Your task to perform on an android device: turn on priority inbox in the gmail app Image 0: 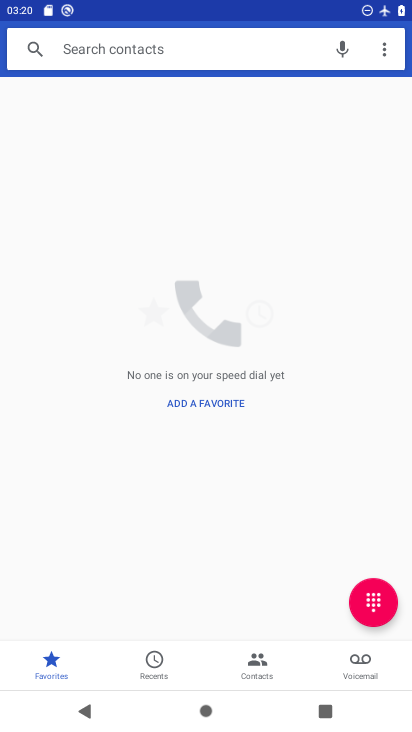
Step 0: press home button
Your task to perform on an android device: turn on priority inbox in the gmail app Image 1: 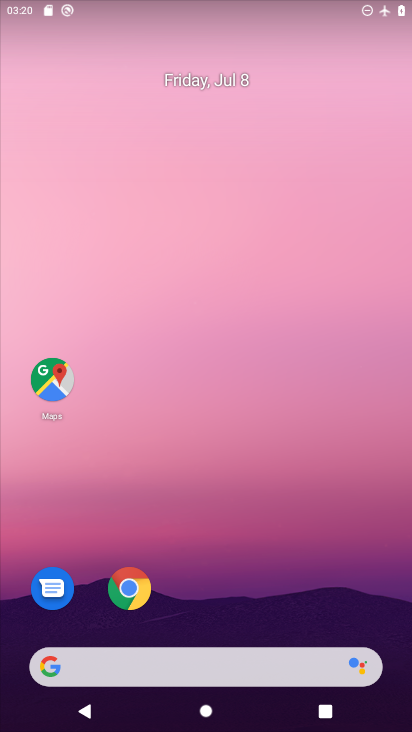
Step 1: click (140, 48)
Your task to perform on an android device: turn on priority inbox in the gmail app Image 2: 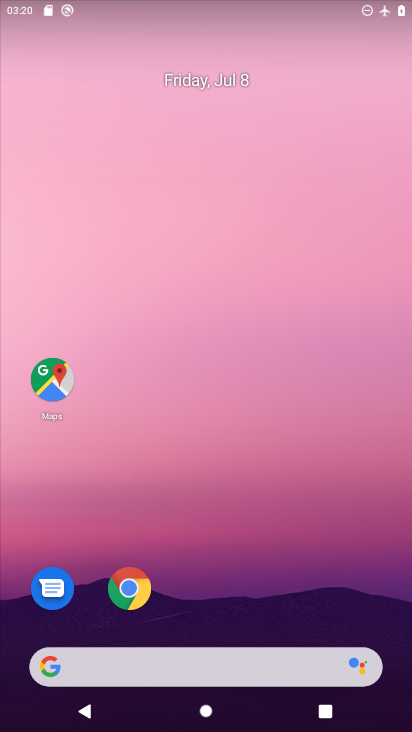
Step 2: drag from (170, 466) to (130, 24)
Your task to perform on an android device: turn on priority inbox in the gmail app Image 3: 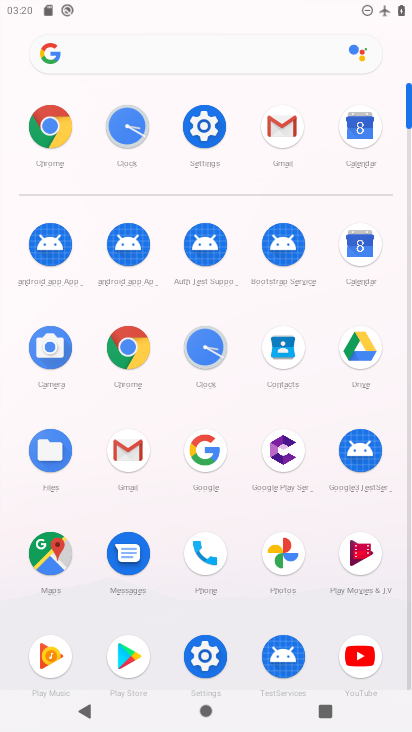
Step 3: drag from (194, 617) to (155, 6)
Your task to perform on an android device: turn on priority inbox in the gmail app Image 4: 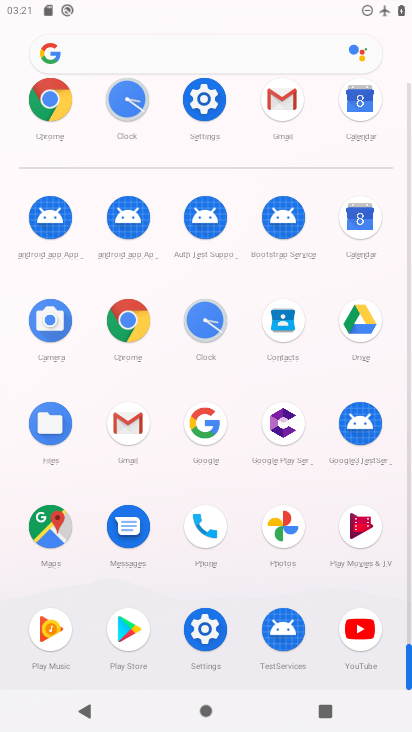
Step 4: click (207, 95)
Your task to perform on an android device: turn on priority inbox in the gmail app Image 5: 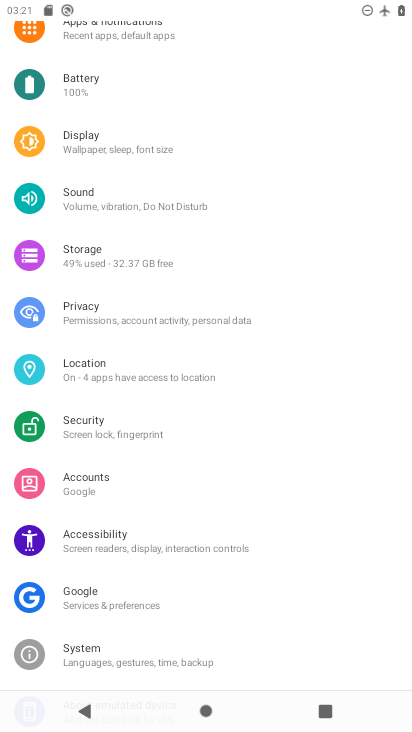
Step 5: press back button
Your task to perform on an android device: turn on priority inbox in the gmail app Image 6: 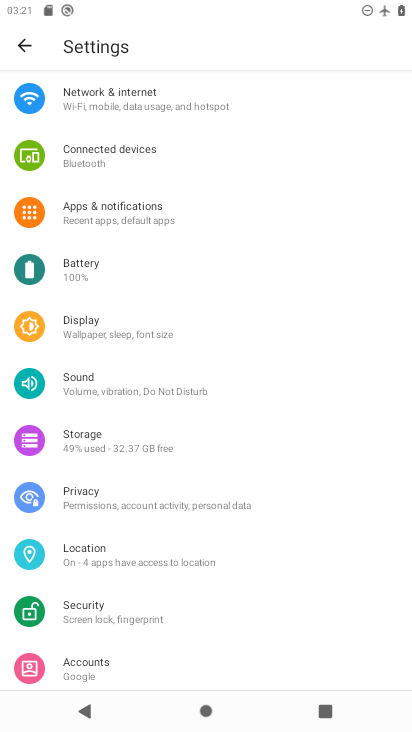
Step 6: press back button
Your task to perform on an android device: turn on priority inbox in the gmail app Image 7: 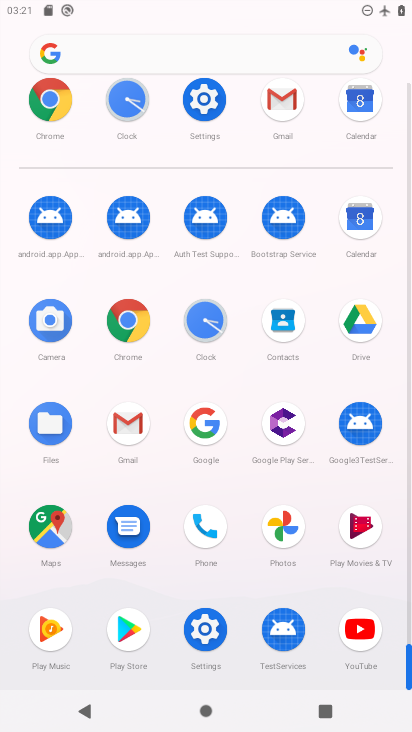
Step 7: click (280, 110)
Your task to perform on an android device: turn on priority inbox in the gmail app Image 8: 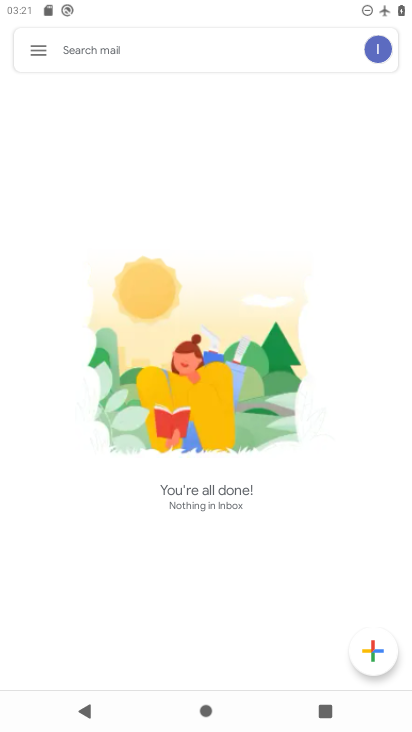
Step 8: click (33, 53)
Your task to perform on an android device: turn on priority inbox in the gmail app Image 9: 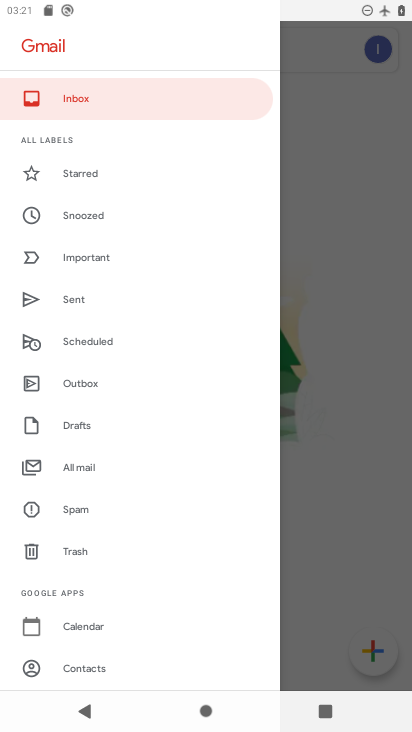
Step 9: drag from (100, 625) to (73, 167)
Your task to perform on an android device: turn on priority inbox in the gmail app Image 10: 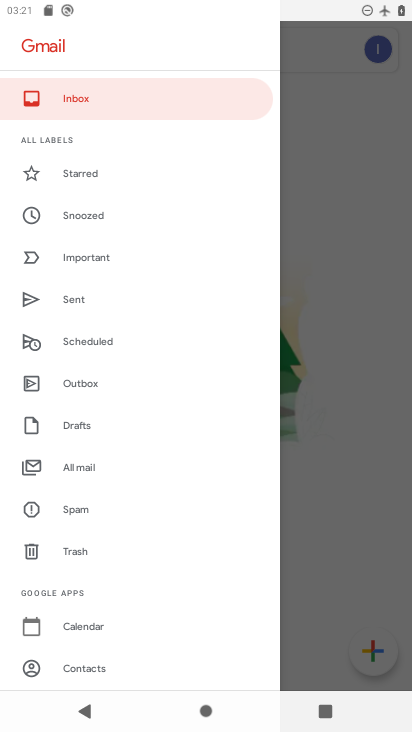
Step 10: drag from (158, 645) to (138, 111)
Your task to perform on an android device: turn on priority inbox in the gmail app Image 11: 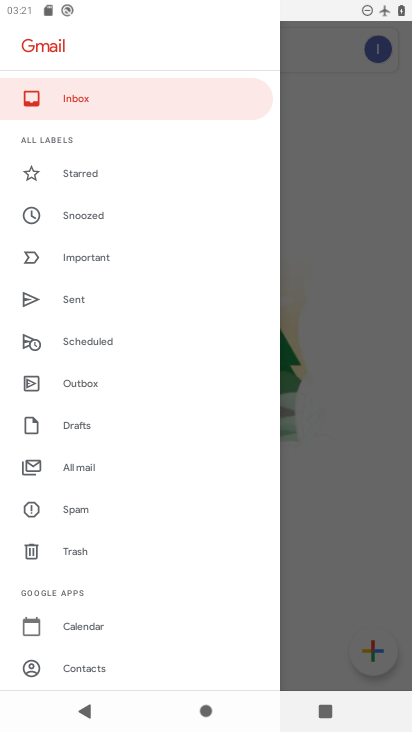
Step 11: drag from (91, 568) to (97, 237)
Your task to perform on an android device: turn on priority inbox in the gmail app Image 12: 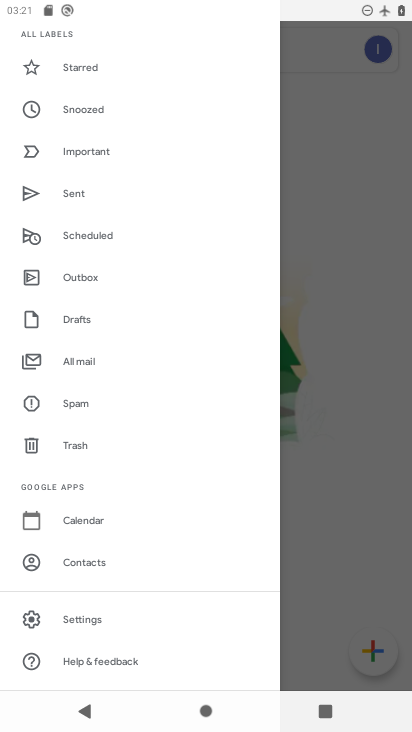
Step 12: click (79, 614)
Your task to perform on an android device: turn on priority inbox in the gmail app Image 13: 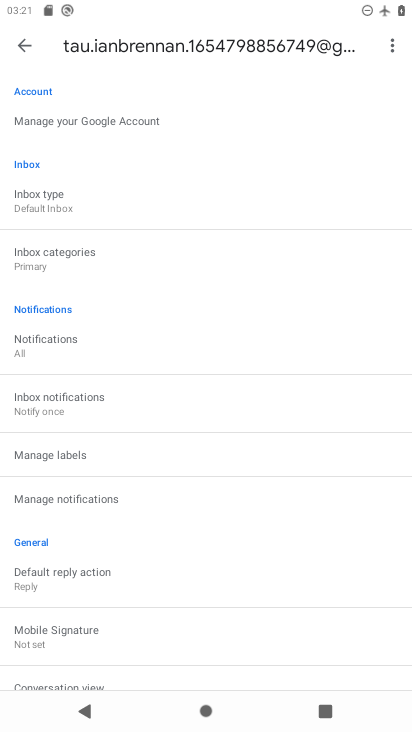
Step 13: click (42, 208)
Your task to perform on an android device: turn on priority inbox in the gmail app Image 14: 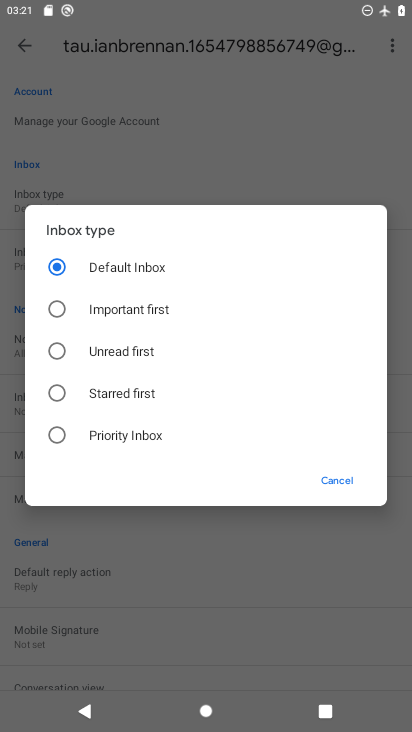
Step 14: click (56, 443)
Your task to perform on an android device: turn on priority inbox in the gmail app Image 15: 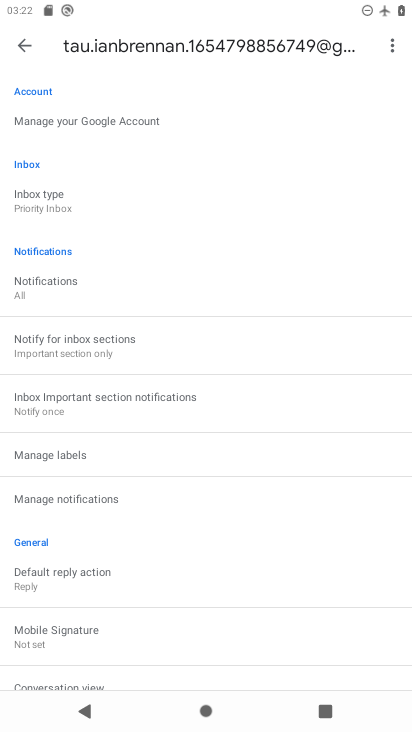
Step 15: task complete